Your task to perform on an android device: turn off airplane mode Image 0: 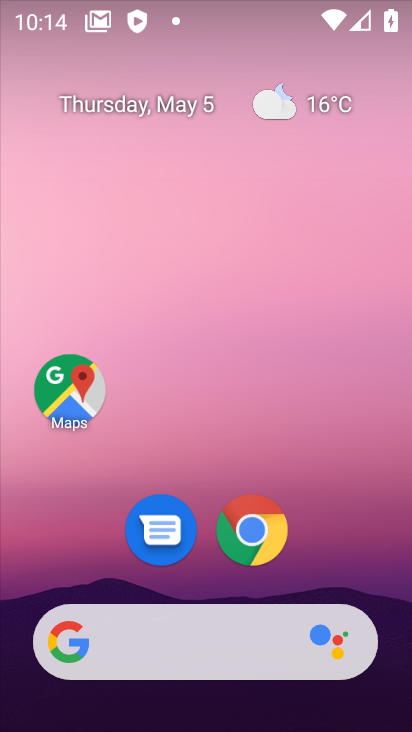
Step 0: drag from (341, 481) to (327, 5)
Your task to perform on an android device: turn off airplane mode Image 1: 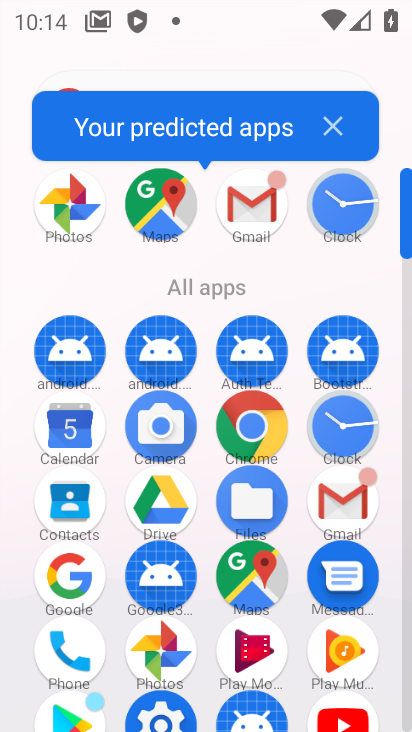
Step 1: drag from (385, 517) to (381, 196)
Your task to perform on an android device: turn off airplane mode Image 2: 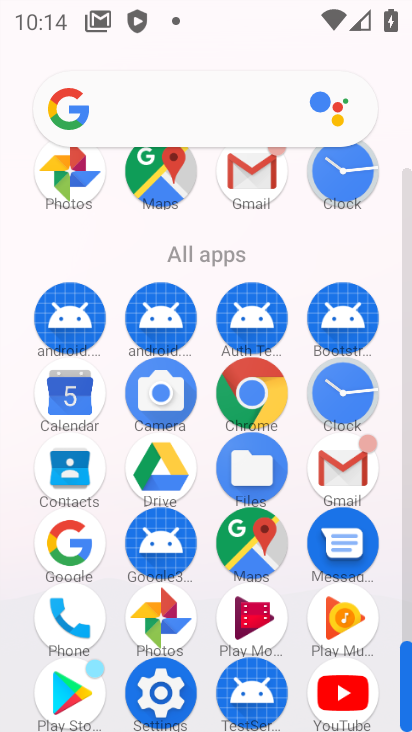
Step 2: click (173, 685)
Your task to perform on an android device: turn off airplane mode Image 3: 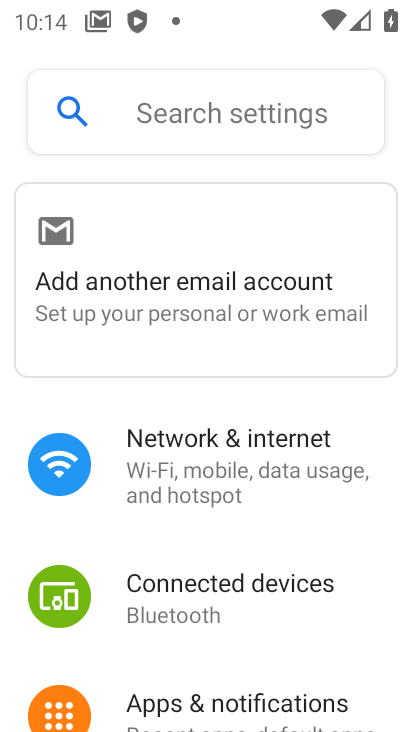
Step 3: click (271, 489)
Your task to perform on an android device: turn off airplane mode Image 4: 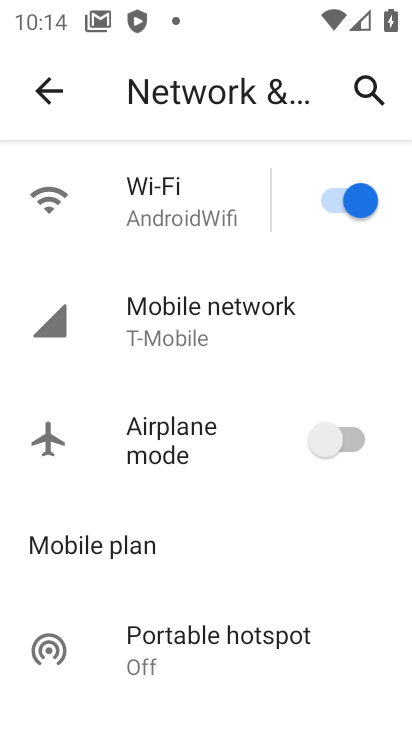
Step 4: task complete